Your task to perform on an android device: change text size in settings app Image 0: 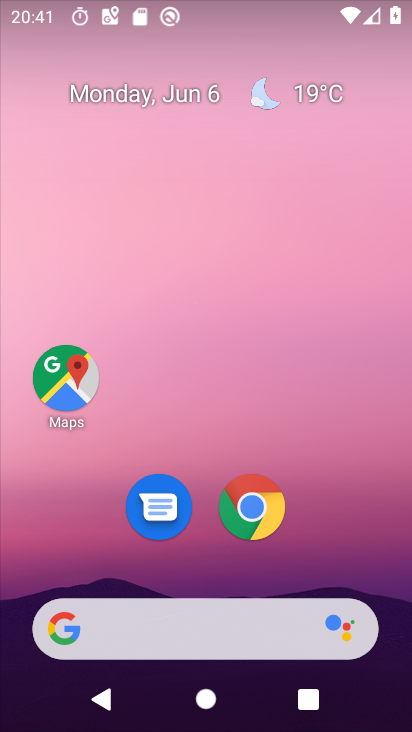
Step 0: press home button
Your task to perform on an android device: change text size in settings app Image 1: 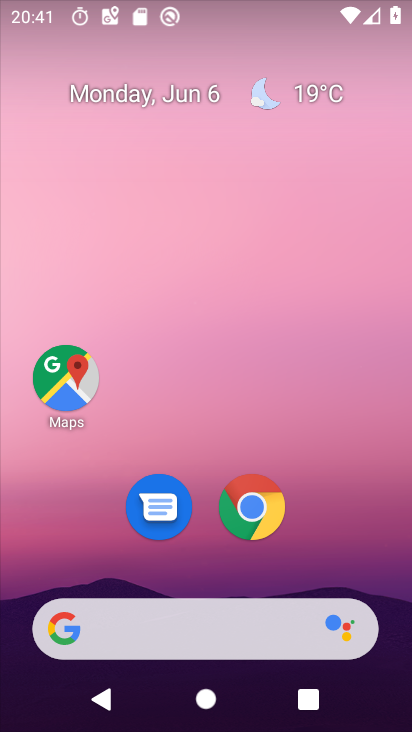
Step 1: drag from (371, 578) to (342, 3)
Your task to perform on an android device: change text size in settings app Image 2: 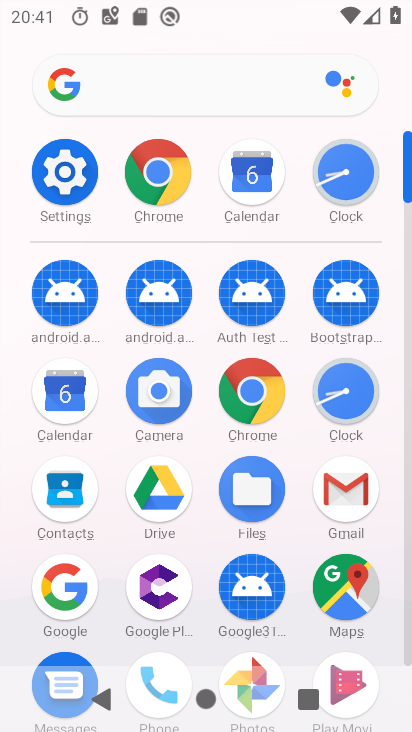
Step 2: click (61, 173)
Your task to perform on an android device: change text size in settings app Image 3: 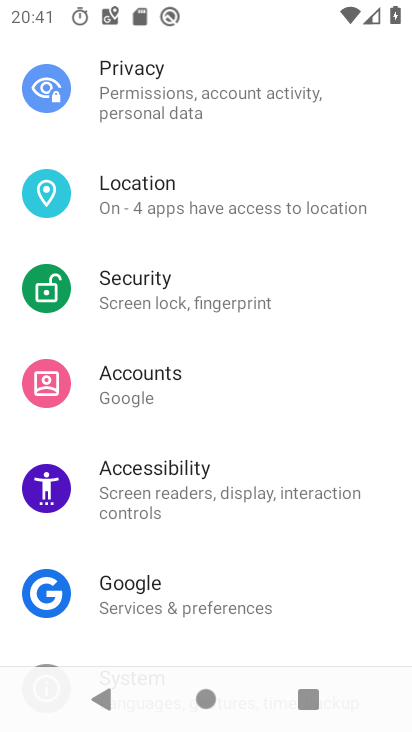
Step 3: drag from (176, 162) to (193, 675)
Your task to perform on an android device: change text size in settings app Image 4: 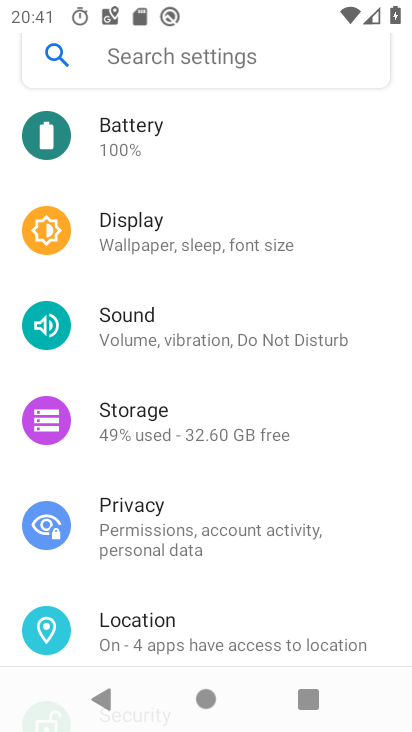
Step 4: click (178, 254)
Your task to perform on an android device: change text size in settings app Image 5: 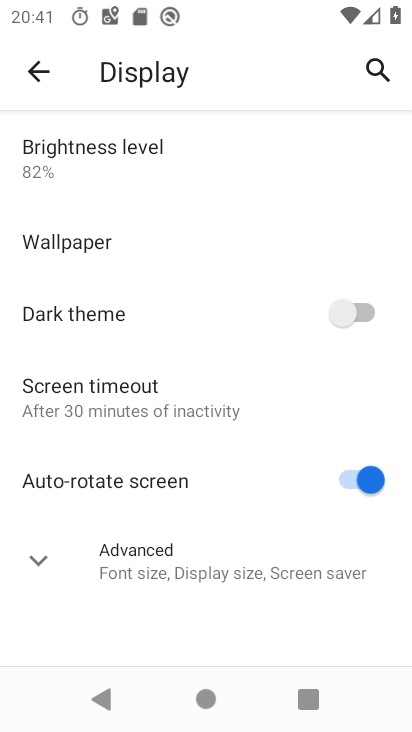
Step 5: click (139, 562)
Your task to perform on an android device: change text size in settings app Image 6: 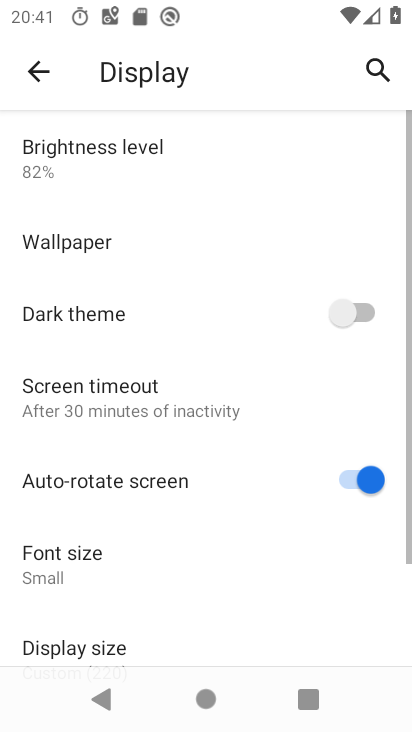
Step 6: click (139, 562)
Your task to perform on an android device: change text size in settings app Image 7: 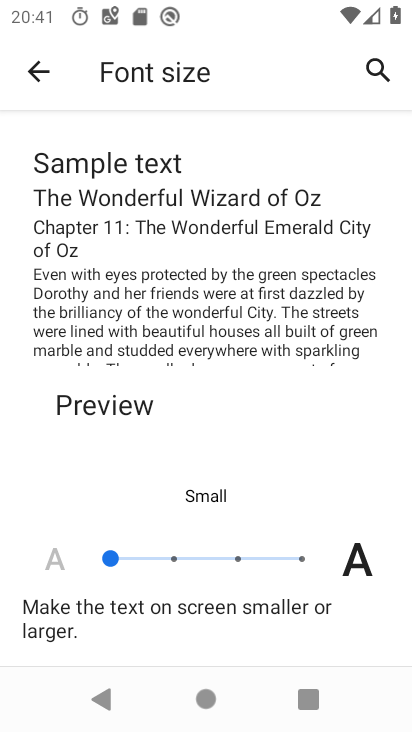
Step 7: click (336, 548)
Your task to perform on an android device: change text size in settings app Image 8: 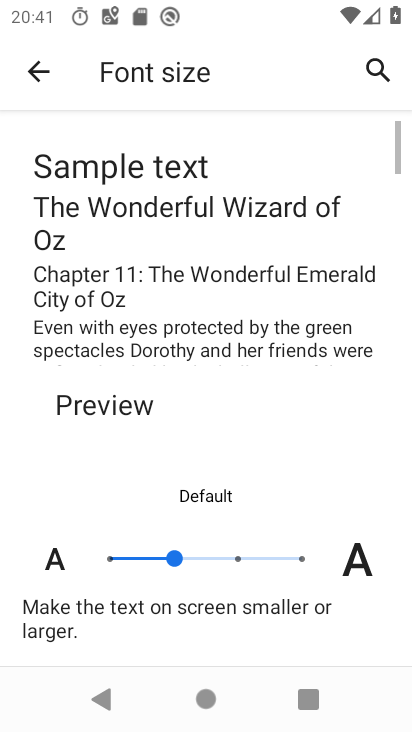
Step 8: task complete